Your task to perform on an android device: Search for Italian restaurants on Maps Image 0: 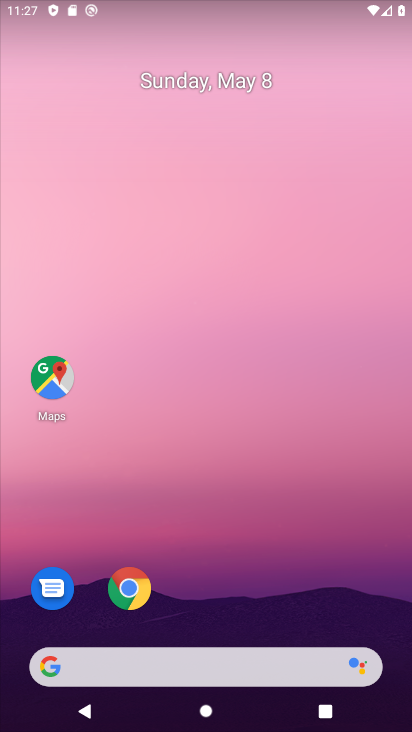
Step 0: click (40, 377)
Your task to perform on an android device: Search for Italian restaurants on Maps Image 1: 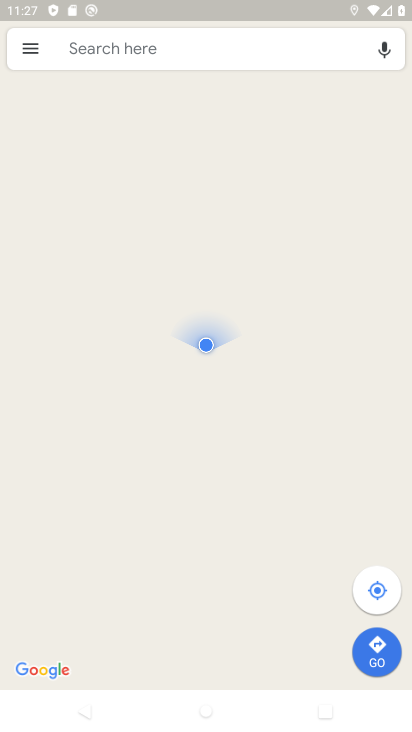
Step 1: click (180, 46)
Your task to perform on an android device: Search for Italian restaurants on Maps Image 2: 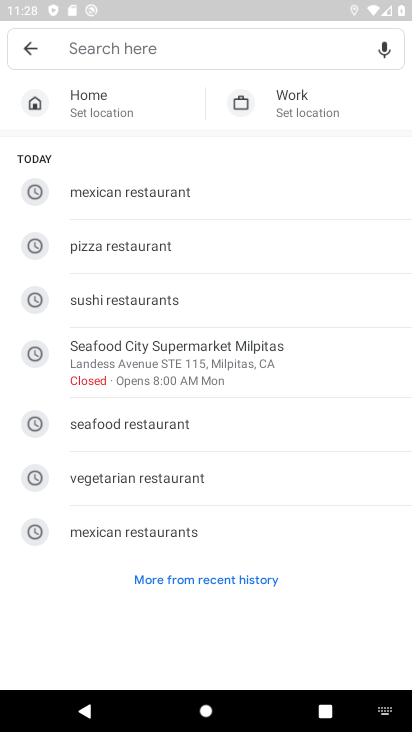
Step 2: type "Italian restaurants"
Your task to perform on an android device: Search for Italian restaurants on Maps Image 3: 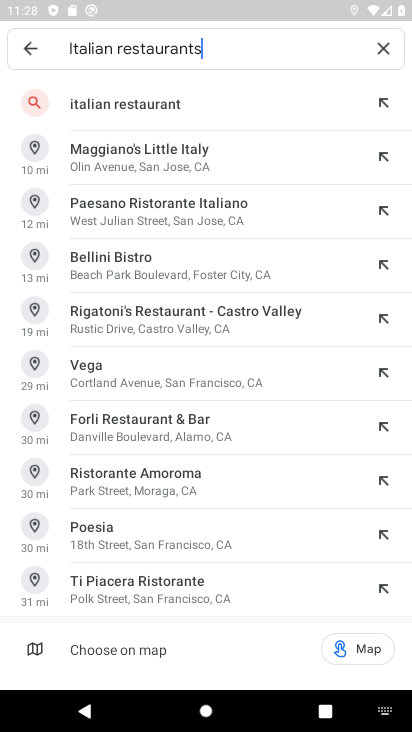
Step 3: click (110, 102)
Your task to perform on an android device: Search for Italian restaurants on Maps Image 4: 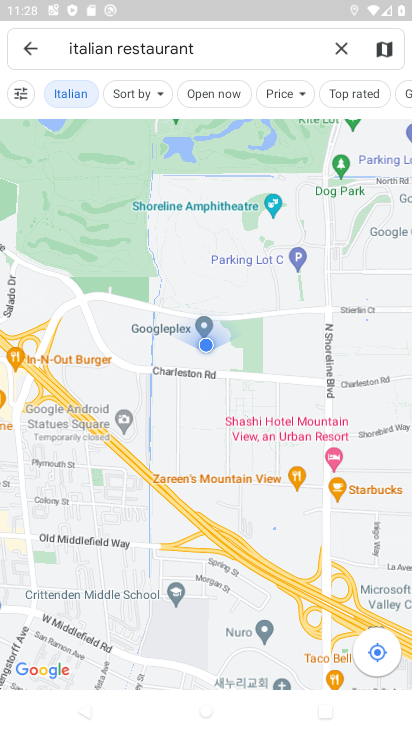
Step 4: task complete